Your task to perform on an android device: turn vacation reply on in the gmail app Image 0: 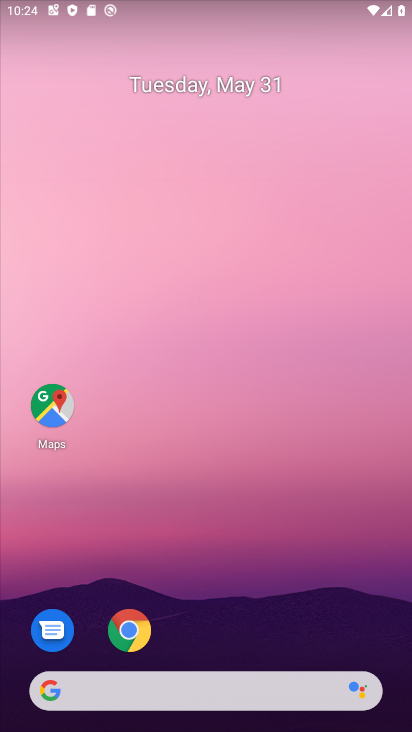
Step 0: drag from (301, 550) to (287, 194)
Your task to perform on an android device: turn vacation reply on in the gmail app Image 1: 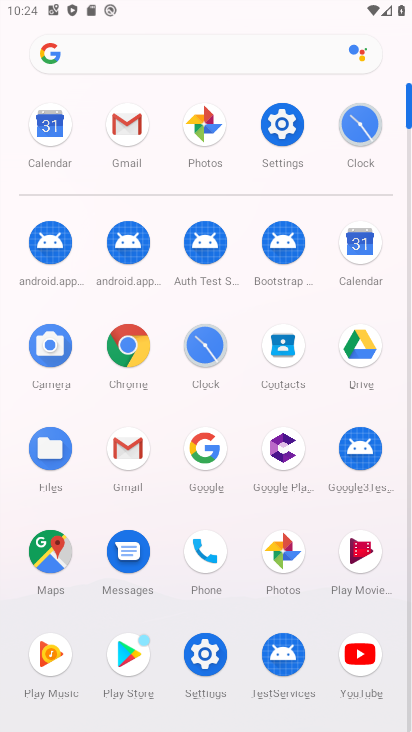
Step 1: click (131, 124)
Your task to perform on an android device: turn vacation reply on in the gmail app Image 2: 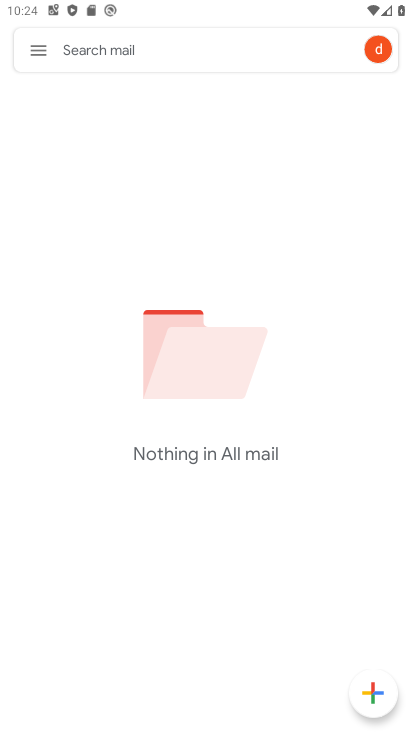
Step 2: click (32, 51)
Your task to perform on an android device: turn vacation reply on in the gmail app Image 3: 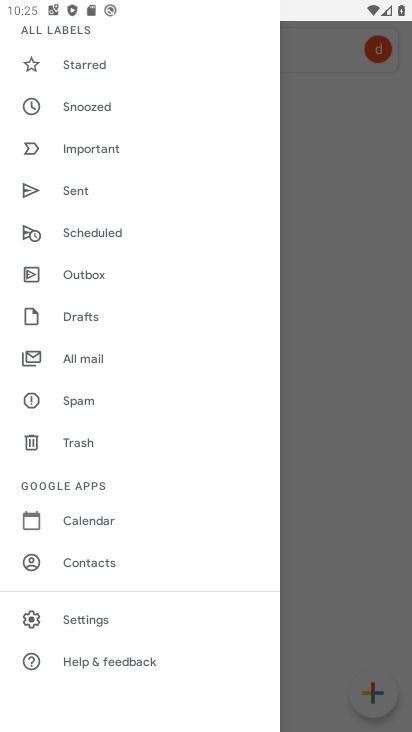
Step 3: click (85, 618)
Your task to perform on an android device: turn vacation reply on in the gmail app Image 4: 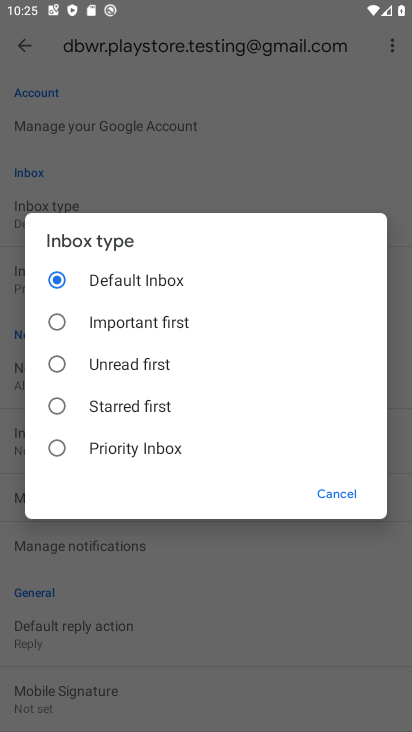
Step 4: click (352, 491)
Your task to perform on an android device: turn vacation reply on in the gmail app Image 5: 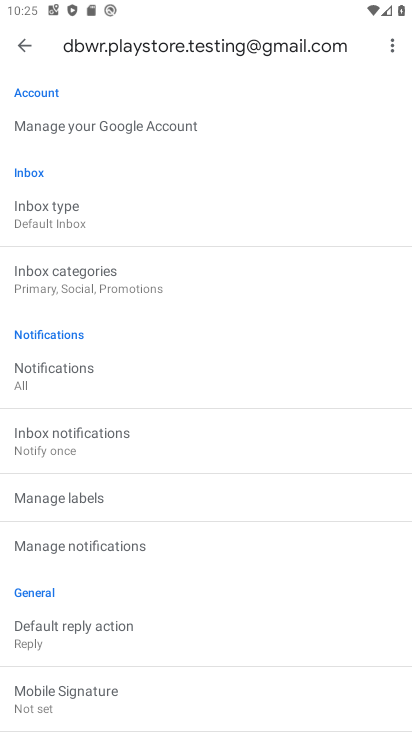
Step 5: drag from (349, 668) to (270, 10)
Your task to perform on an android device: turn vacation reply on in the gmail app Image 6: 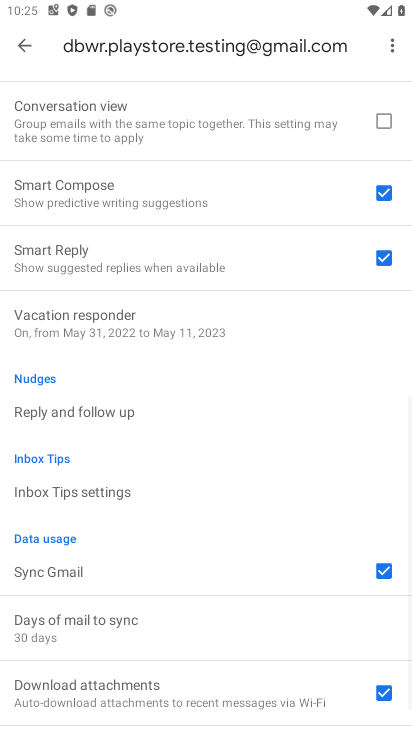
Step 6: drag from (264, 663) to (204, 90)
Your task to perform on an android device: turn vacation reply on in the gmail app Image 7: 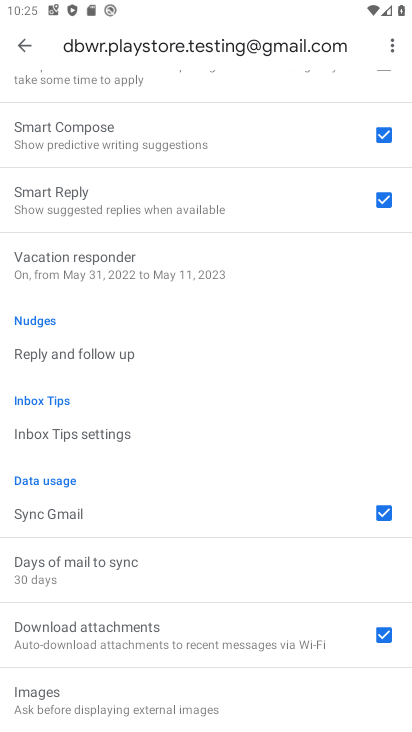
Step 7: click (138, 268)
Your task to perform on an android device: turn vacation reply on in the gmail app Image 8: 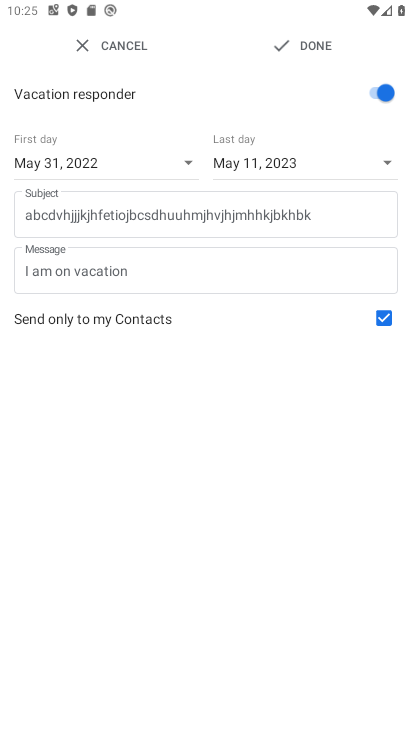
Step 8: task complete